Your task to perform on an android device: Add razer blade to the cart on walmart.com, then select checkout. Image 0: 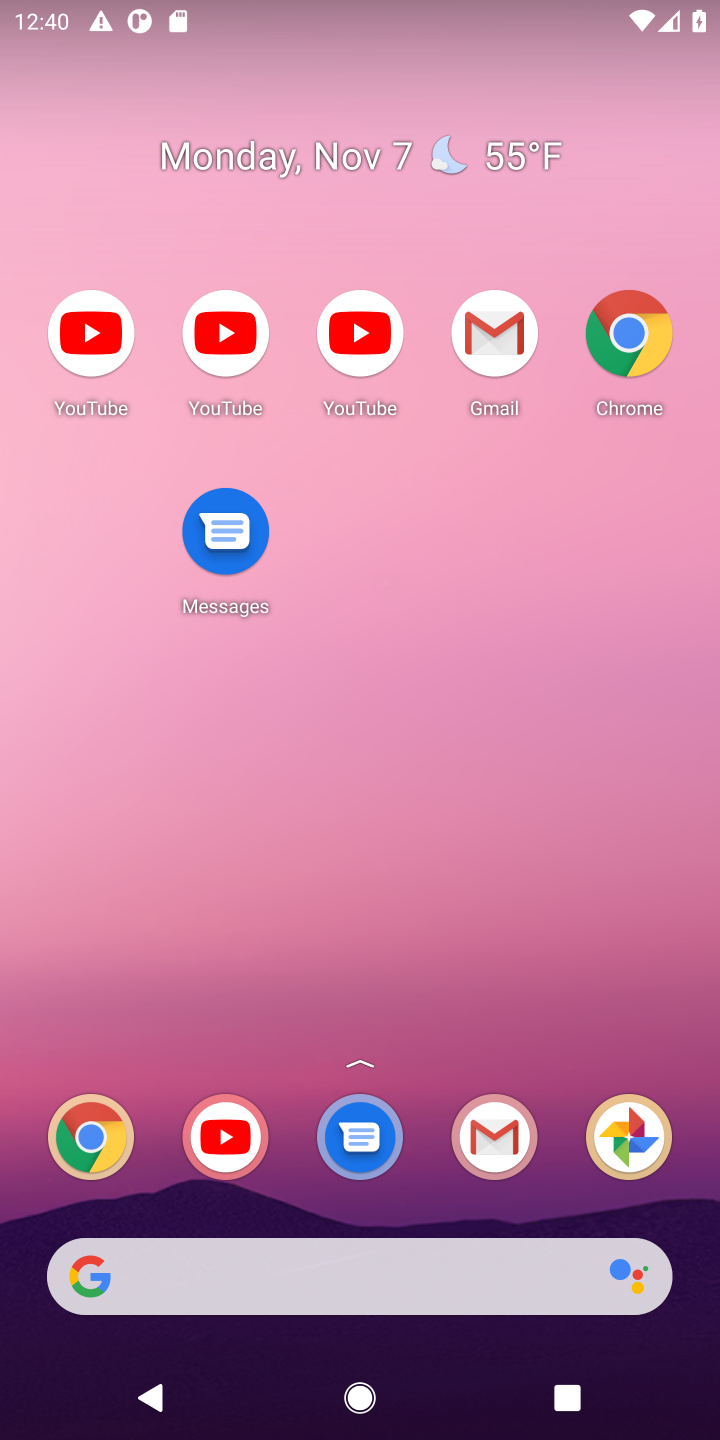
Step 0: drag from (510, 807) to (579, 0)
Your task to perform on an android device: Add razer blade to the cart on walmart.com, then select checkout. Image 1: 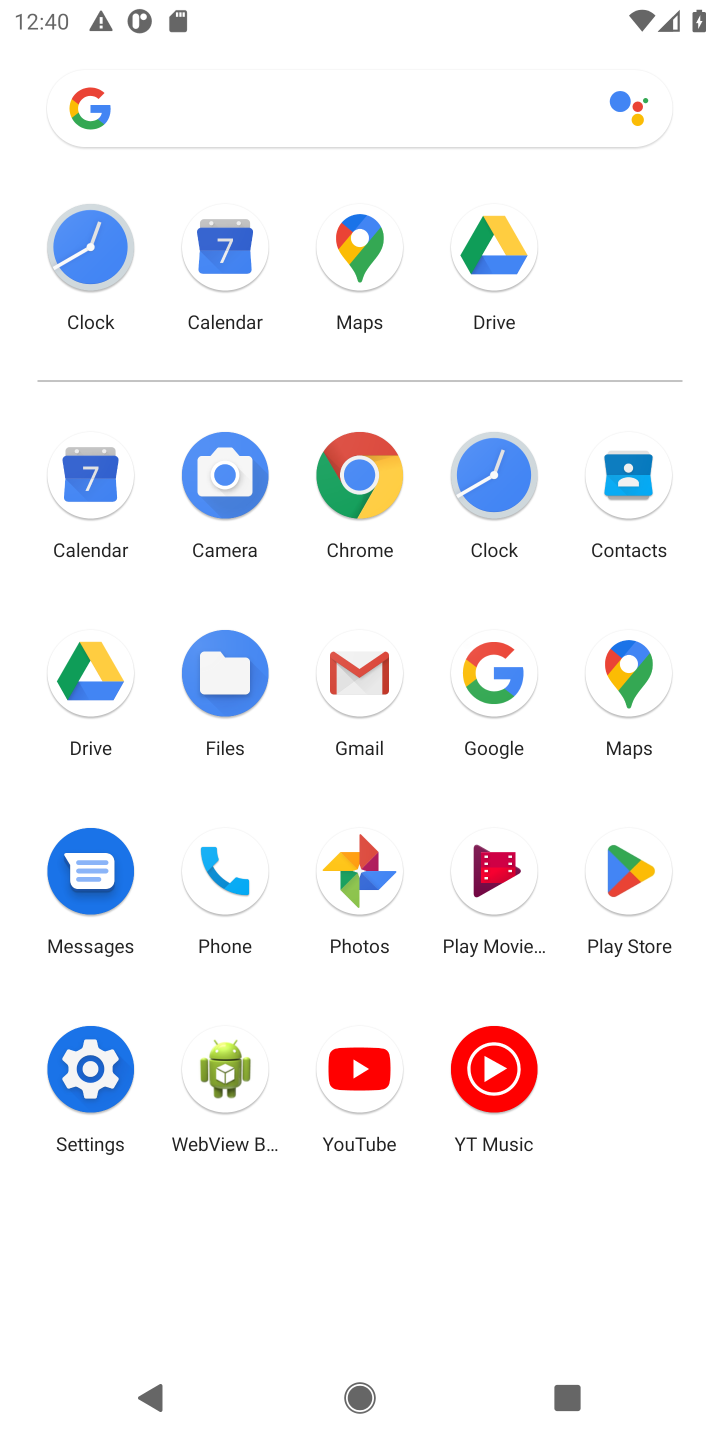
Step 1: click (360, 475)
Your task to perform on an android device: Add razer blade to the cart on walmart.com, then select checkout. Image 2: 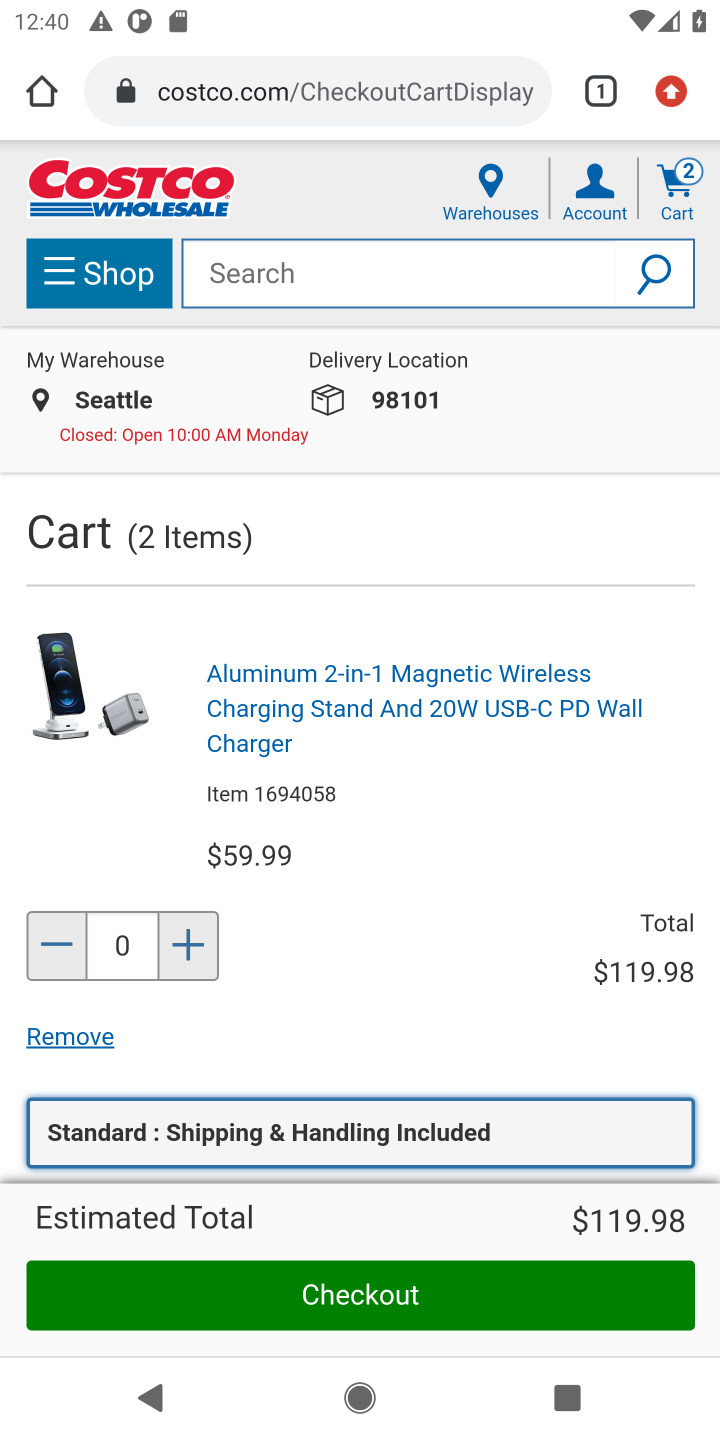
Step 2: click (354, 86)
Your task to perform on an android device: Add razer blade to the cart on walmart.com, then select checkout. Image 3: 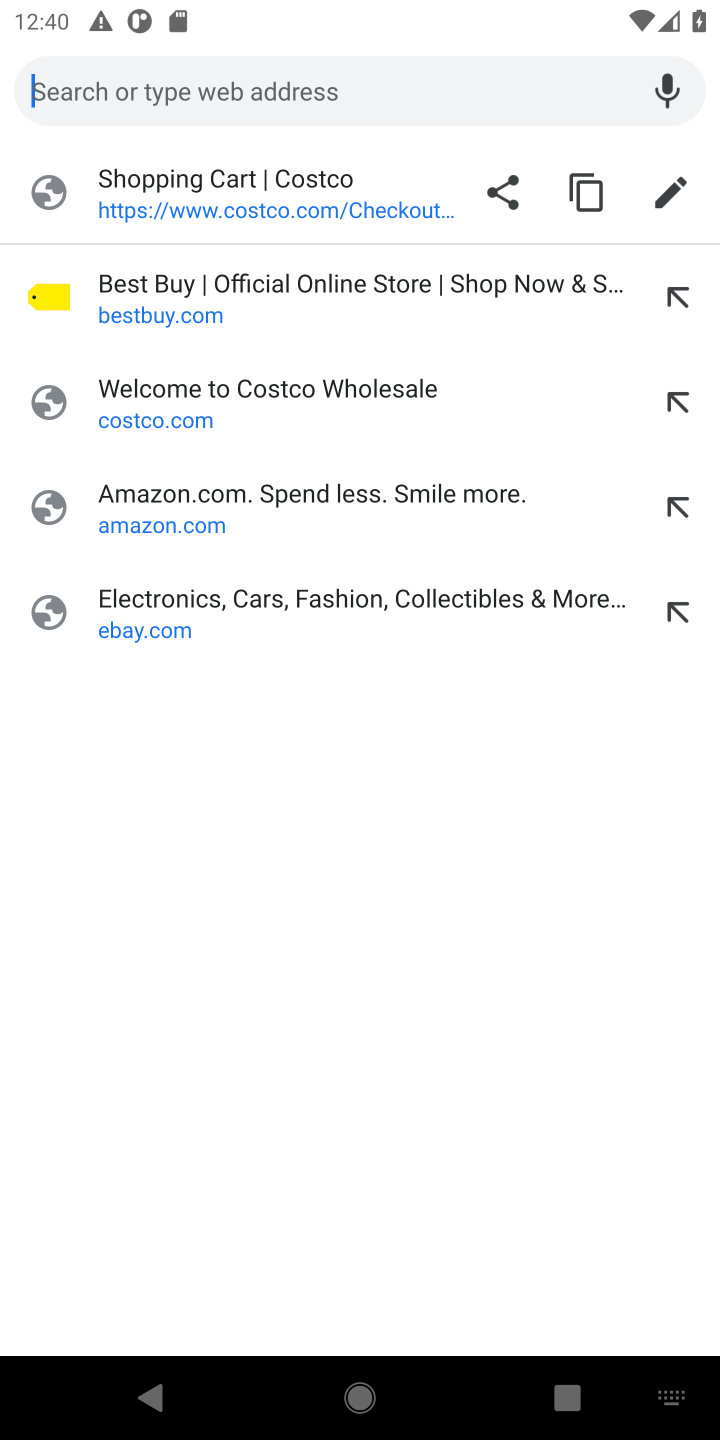
Step 3: type "walmart.com"
Your task to perform on an android device: Add razer blade to the cart on walmart.com, then select checkout. Image 4: 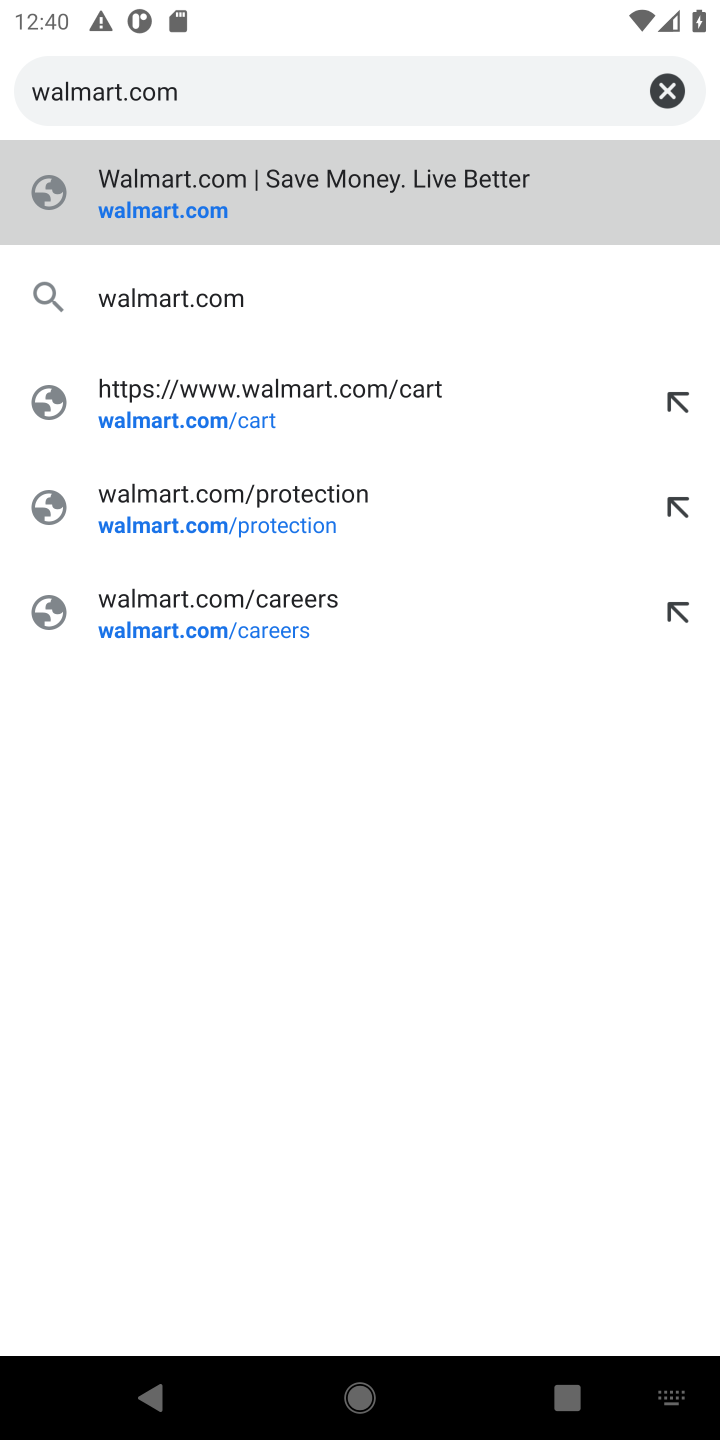
Step 4: press enter
Your task to perform on an android device: Add razer blade to the cart on walmart.com, then select checkout. Image 5: 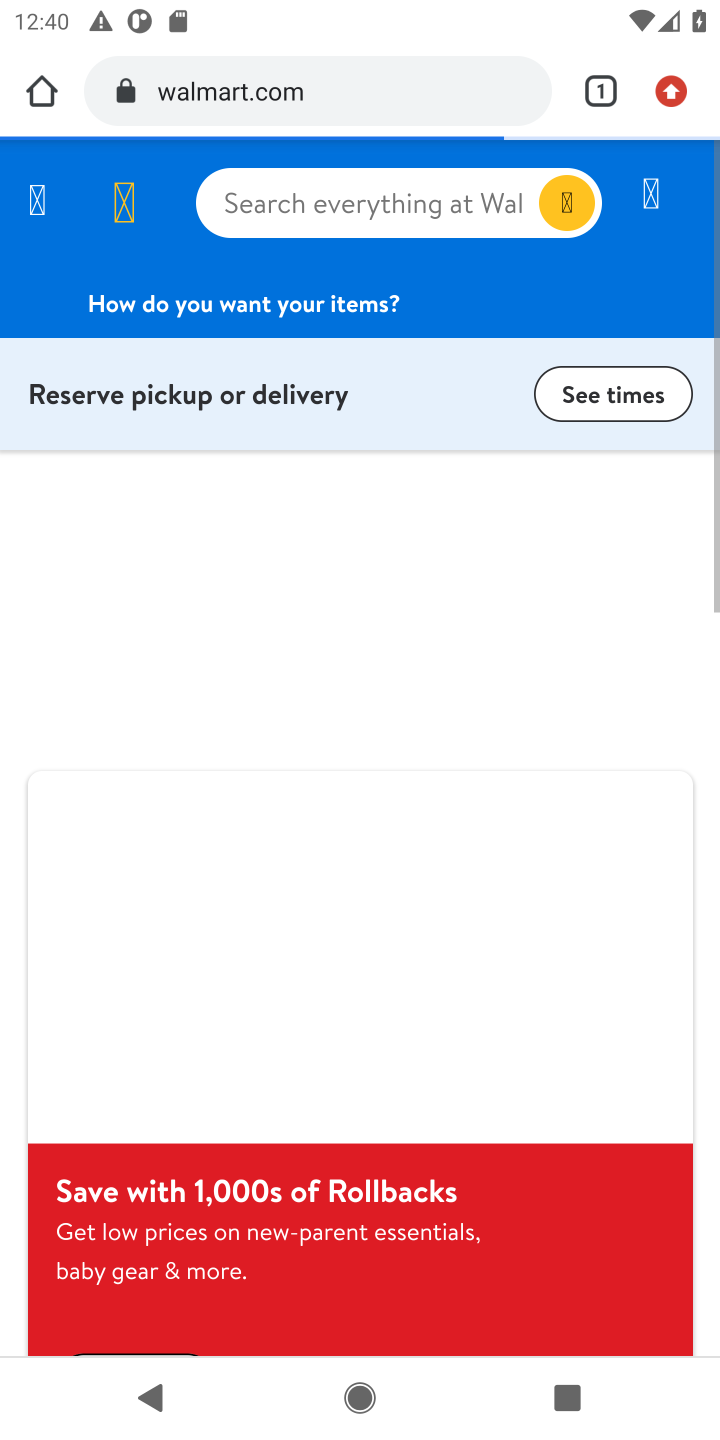
Step 5: click (248, 209)
Your task to perform on an android device: Add razer blade to the cart on walmart.com, then select checkout. Image 6: 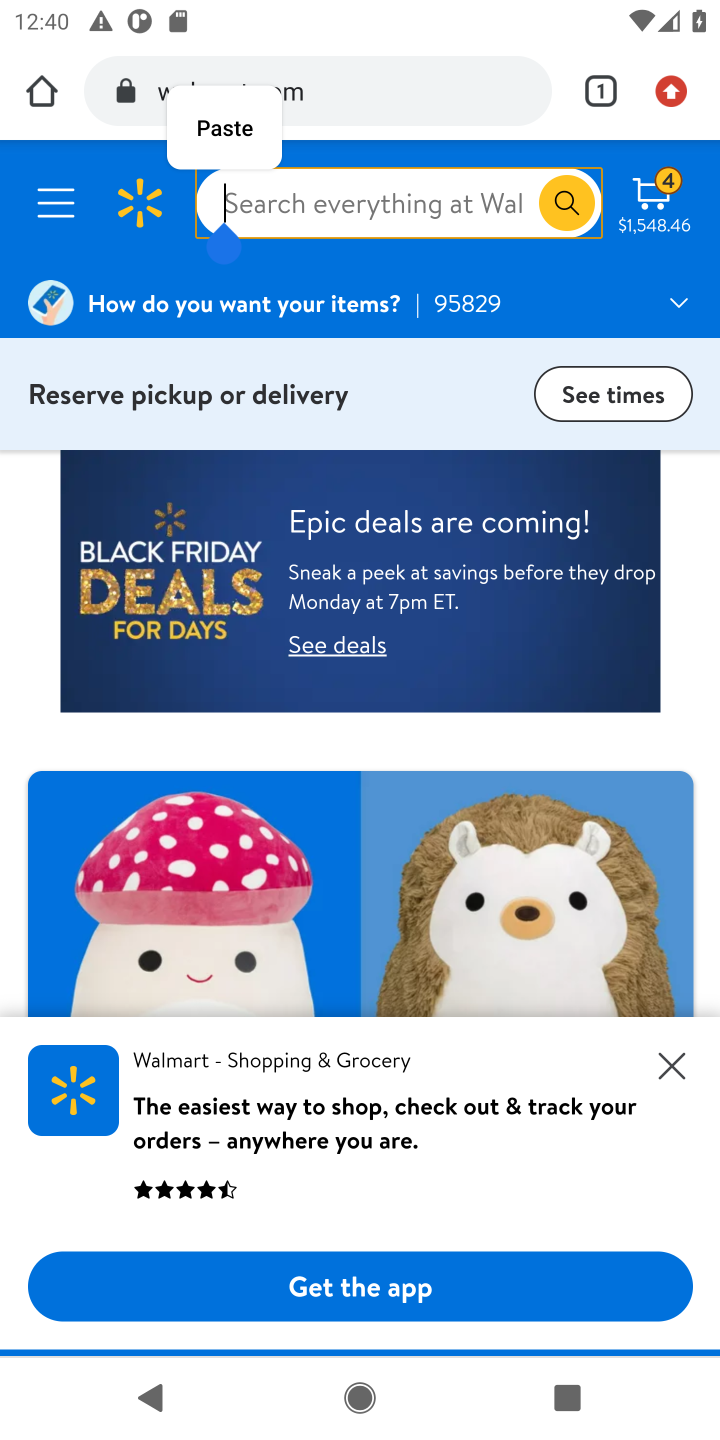
Step 6: type "razer blade"
Your task to perform on an android device: Add razer blade to the cart on walmart.com, then select checkout. Image 7: 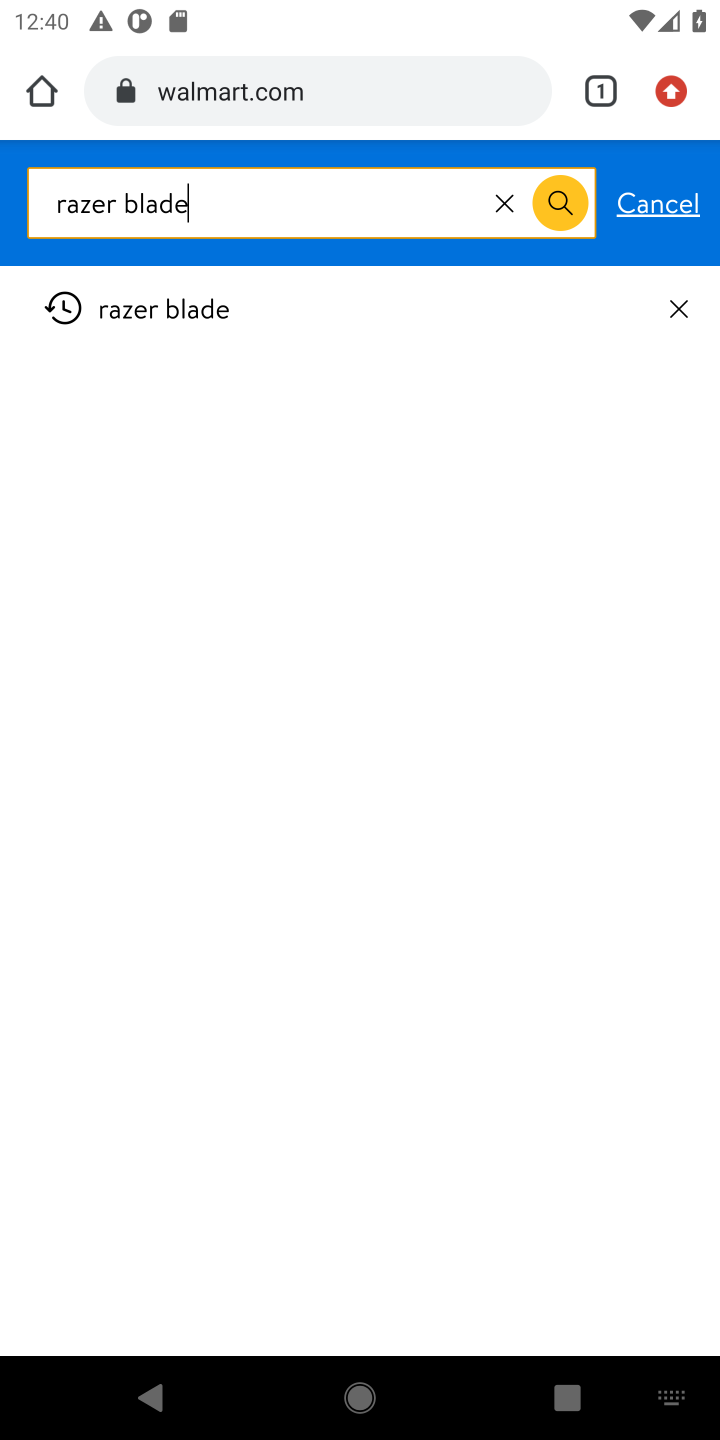
Step 7: press enter
Your task to perform on an android device: Add razer blade to the cart on walmart.com, then select checkout. Image 8: 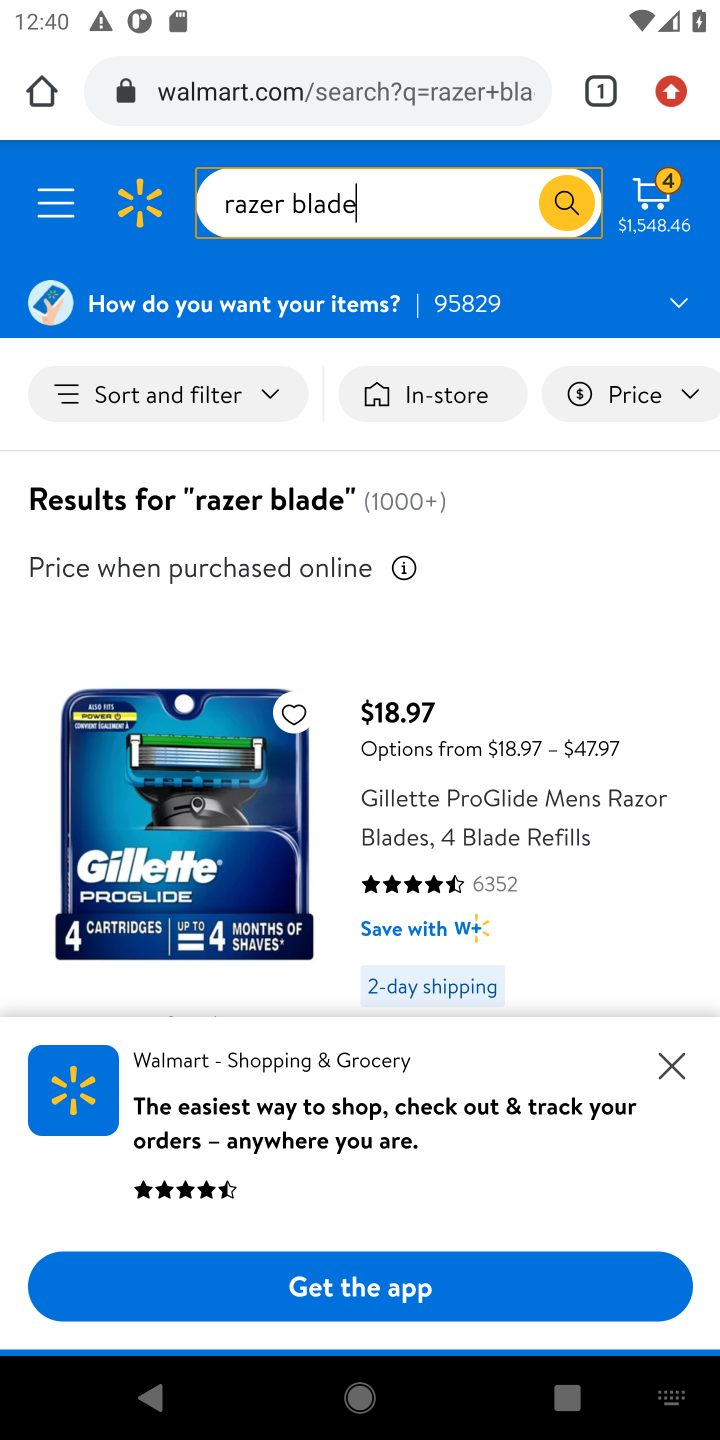
Step 8: task complete